Your task to perform on an android device: Open Google Chrome and click the shortcut for Amazon.com Image 0: 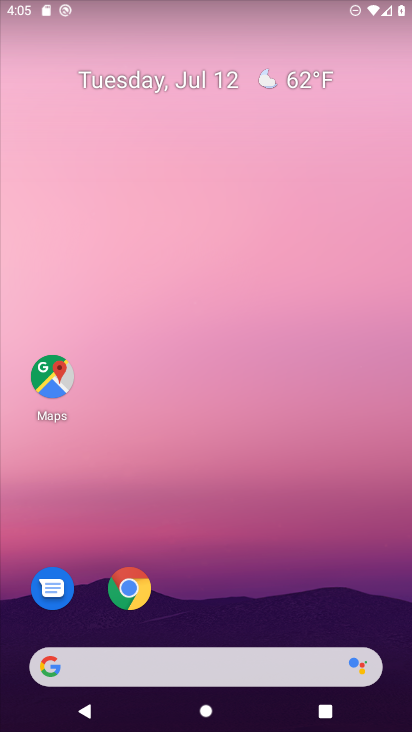
Step 0: click (128, 578)
Your task to perform on an android device: Open Google Chrome and click the shortcut for Amazon.com Image 1: 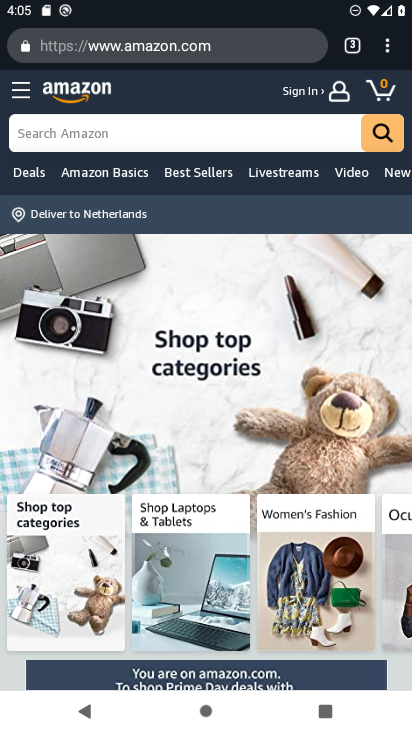
Step 1: click (388, 51)
Your task to perform on an android device: Open Google Chrome and click the shortcut for Amazon.com Image 2: 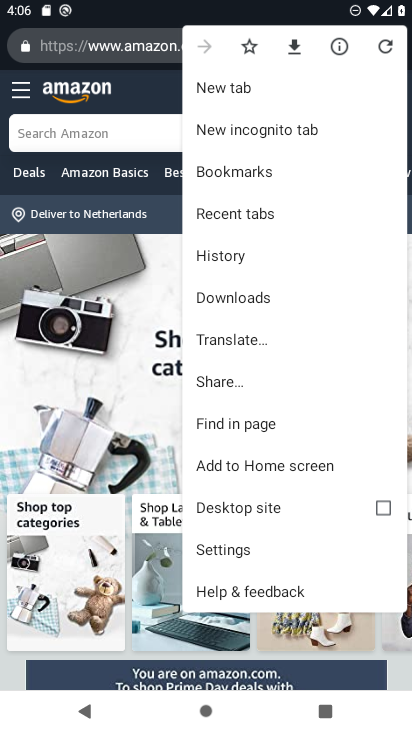
Step 2: click (250, 95)
Your task to perform on an android device: Open Google Chrome and click the shortcut for Amazon.com Image 3: 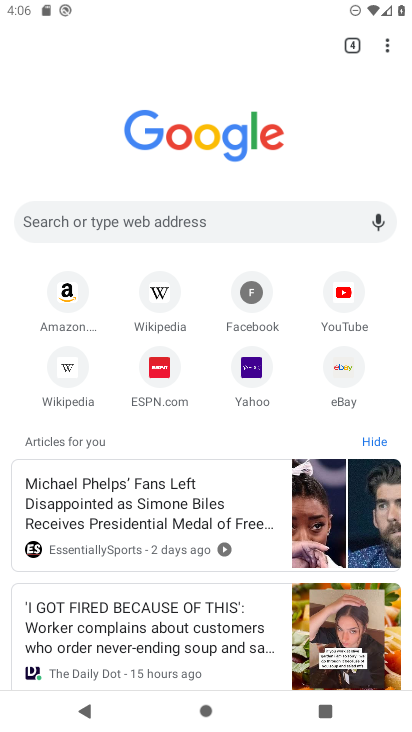
Step 3: click (70, 290)
Your task to perform on an android device: Open Google Chrome and click the shortcut for Amazon.com Image 4: 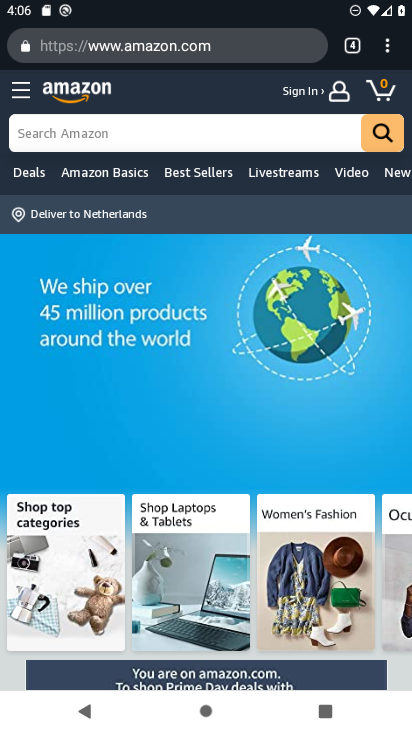
Step 4: task complete